Your task to perform on an android device: check battery use Image 0: 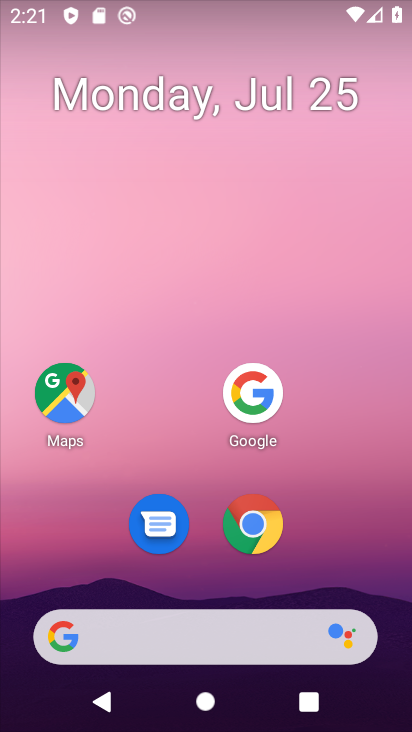
Step 0: press home button
Your task to perform on an android device: check battery use Image 1: 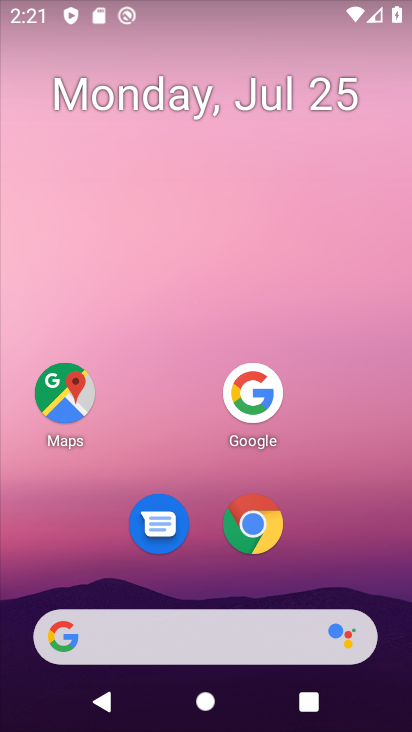
Step 1: drag from (172, 655) to (332, 158)
Your task to perform on an android device: check battery use Image 2: 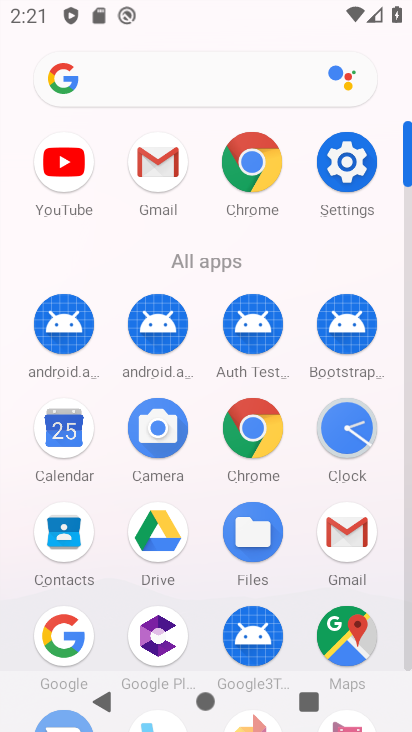
Step 2: click (352, 163)
Your task to perform on an android device: check battery use Image 3: 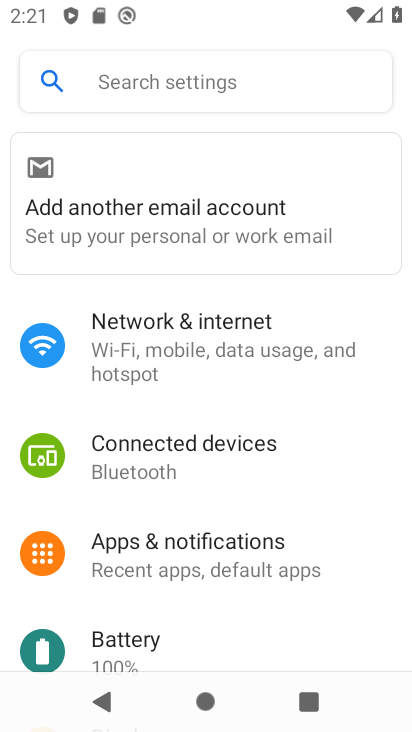
Step 3: drag from (236, 613) to (329, 236)
Your task to perform on an android device: check battery use Image 4: 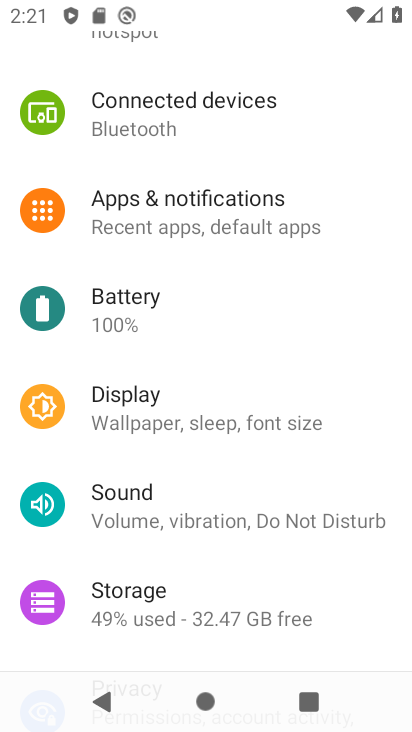
Step 4: click (132, 326)
Your task to perform on an android device: check battery use Image 5: 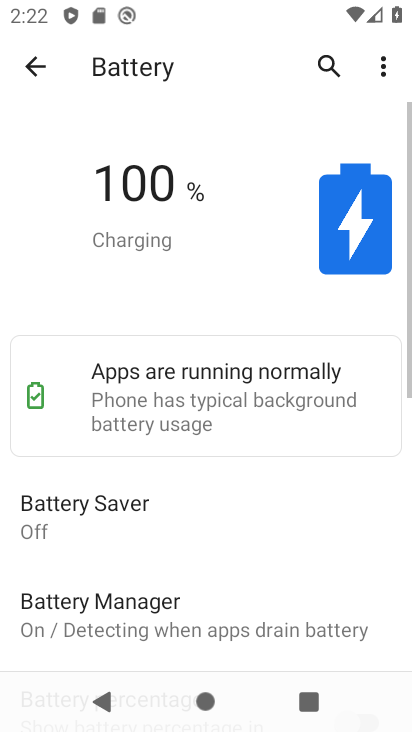
Step 5: click (380, 71)
Your task to perform on an android device: check battery use Image 6: 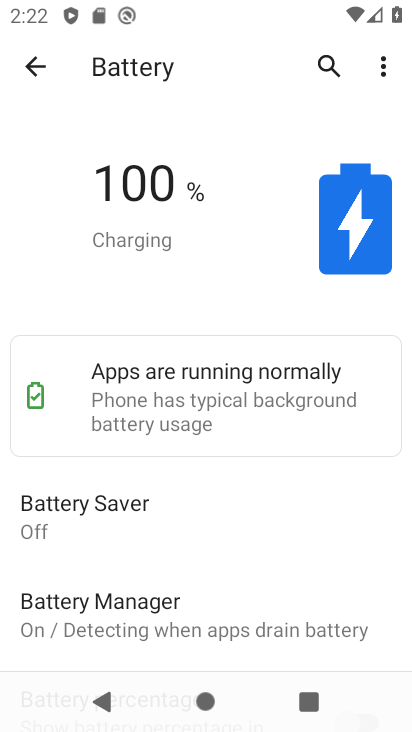
Step 6: click (380, 67)
Your task to perform on an android device: check battery use Image 7: 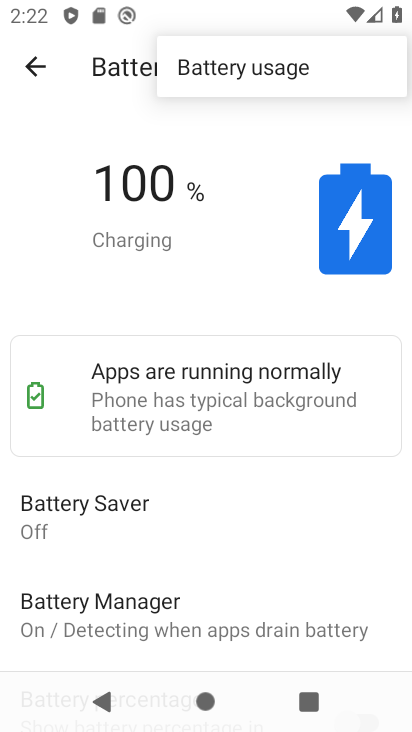
Step 7: click (230, 65)
Your task to perform on an android device: check battery use Image 8: 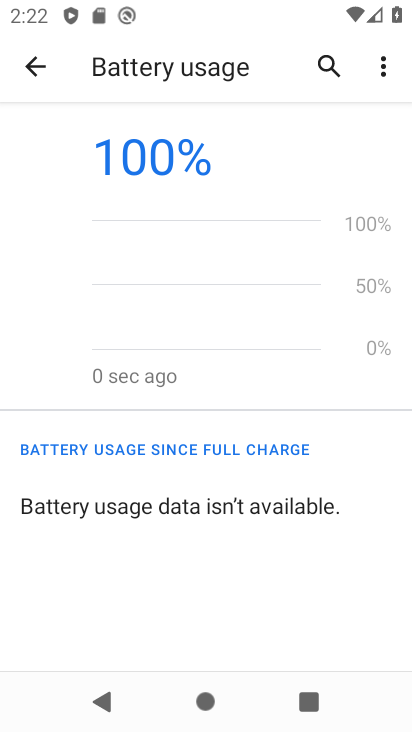
Step 8: task complete